Your task to perform on an android device: Go to ESPN.com Image 0: 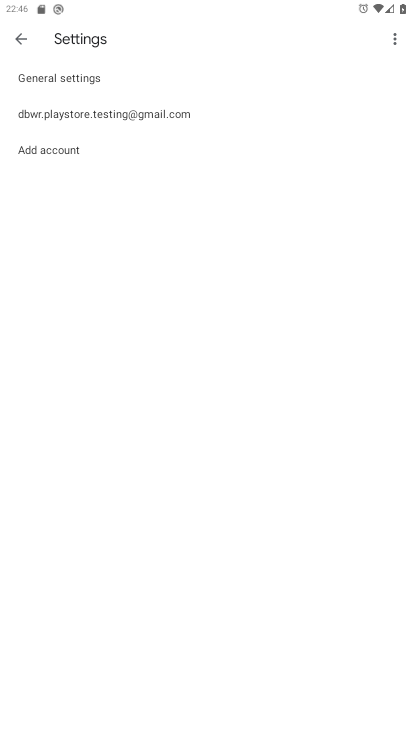
Step 0: press home button
Your task to perform on an android device: Go to ESPN.com Image 1: 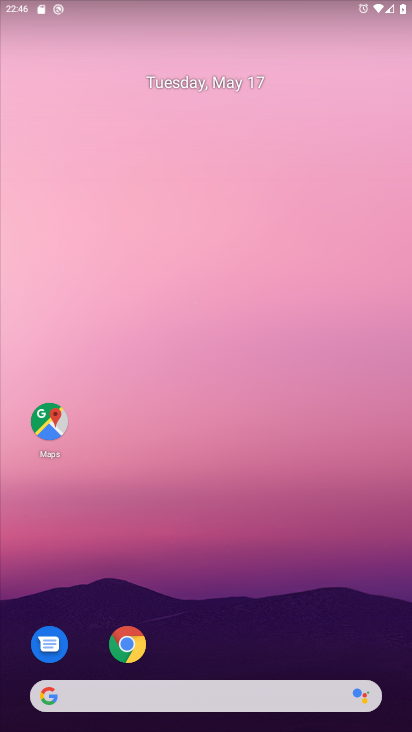
Step 1: click (125, 638)
Your task to perform on an android device: Go to ESPN.com Image 2: 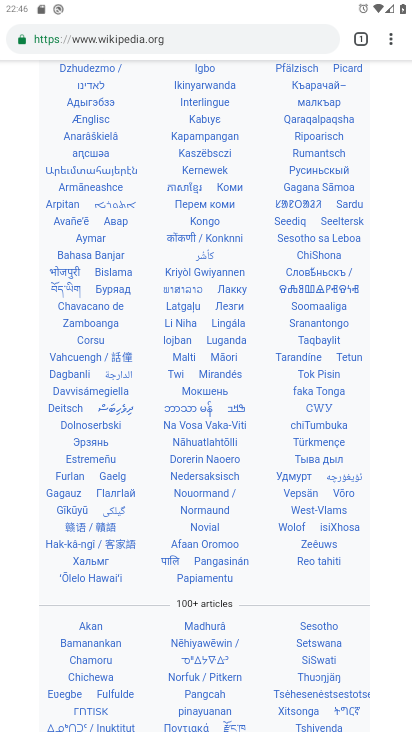
Step 2: click (364, 37)
Your task to perform on an android device: Go to ESPN.com Image 3: 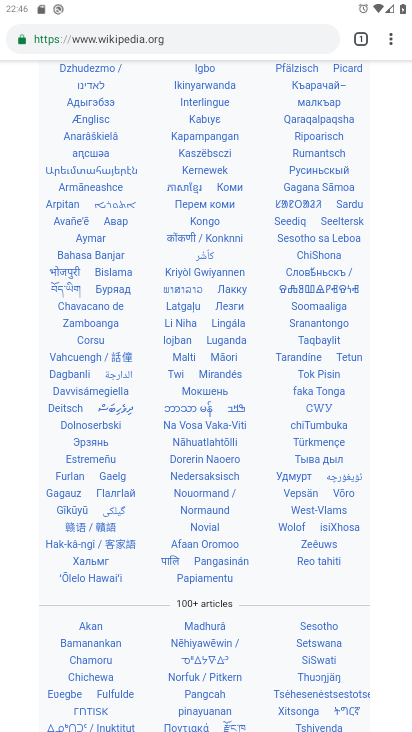
Step 3: click (360, 33)
Your task to perform on an android device: Go to ESPN.com Image 4: 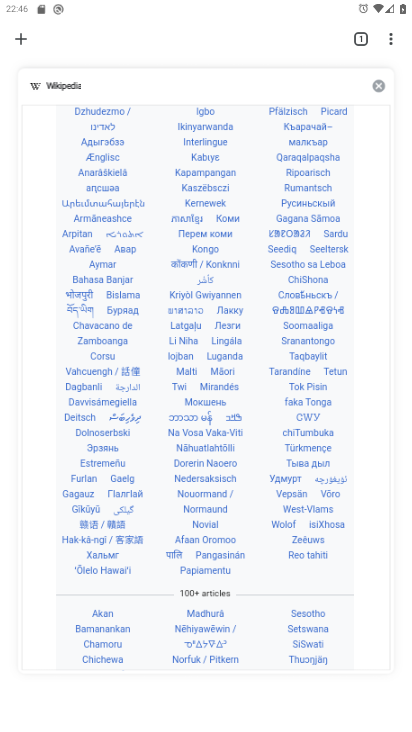
Step 4: click (373, 80)
Your task to perform on an android device: Go to ESPN.com Image 5: 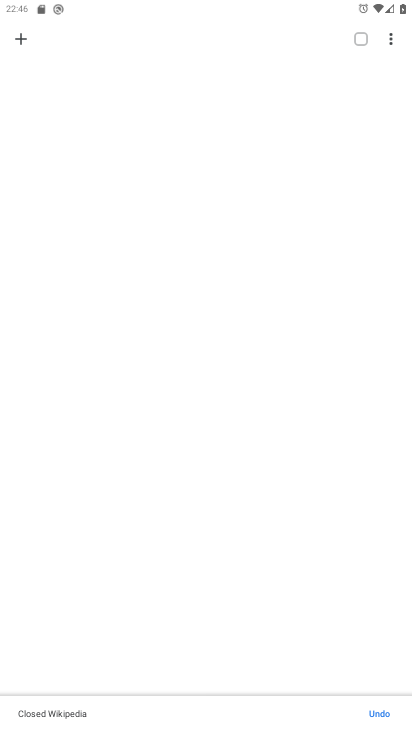
Step 5: click (28, 34)
Your task to perform on an android device: Go to ESPN.com Image 6: 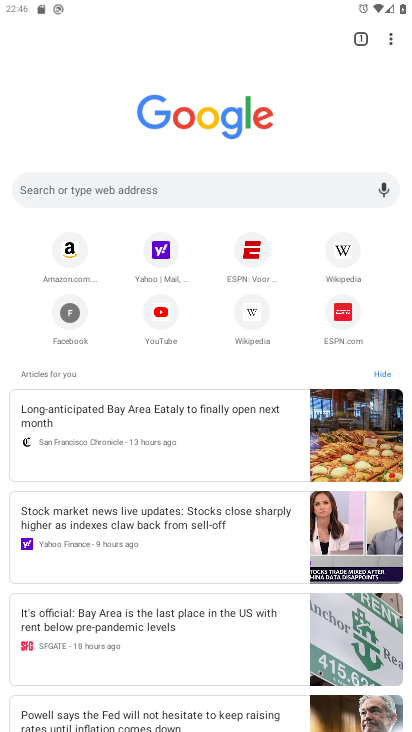
Step 6: click (253, 256)
Your task to perform on an android device: Go to ESPN.com Image 7: 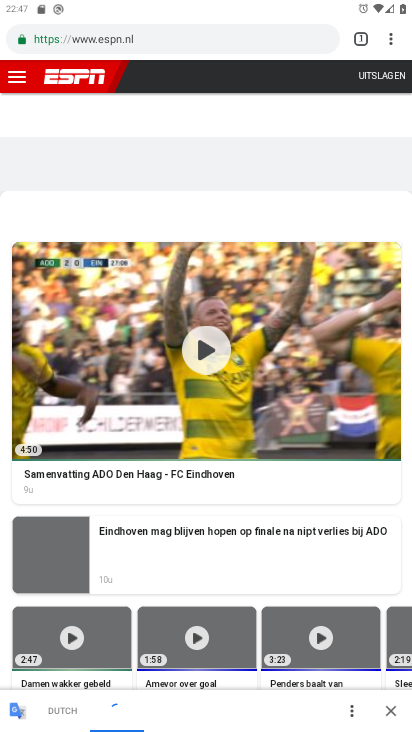
Step 7: task complete